Your task to perform on an android device: What's the weather going to be tomorrow? Image 0: 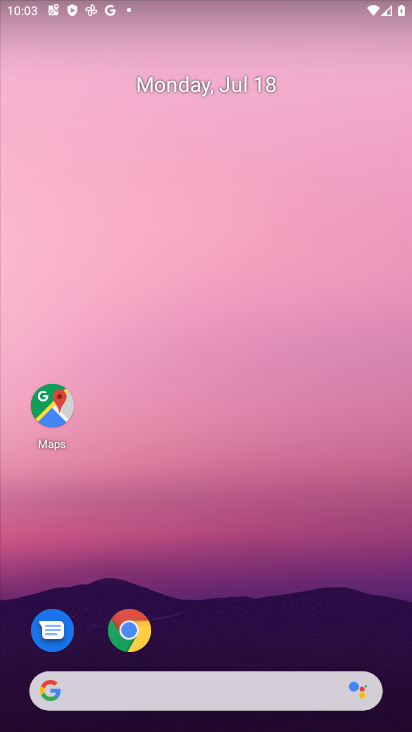
Step 0: drag from (362, 645) to (240, 6)
Your task to perform on an android device: What's the weather going to be tomorrow? Image 1: 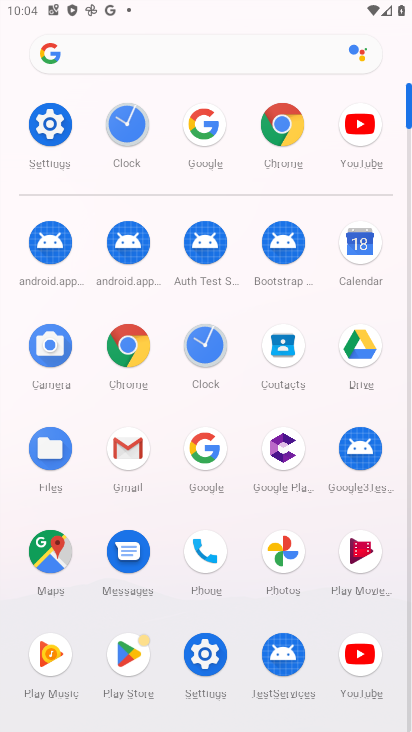
Step 1: click (209, 458)
Your task to perform on an android device: What's the weather going to be tomorrow? Image 2: 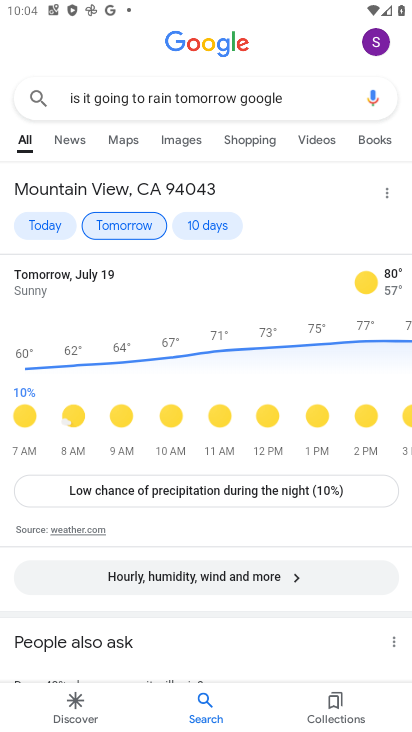
Step 2: press back button
Your task to perform on an android device: What's the weather going to be tomorrow? Image 3: 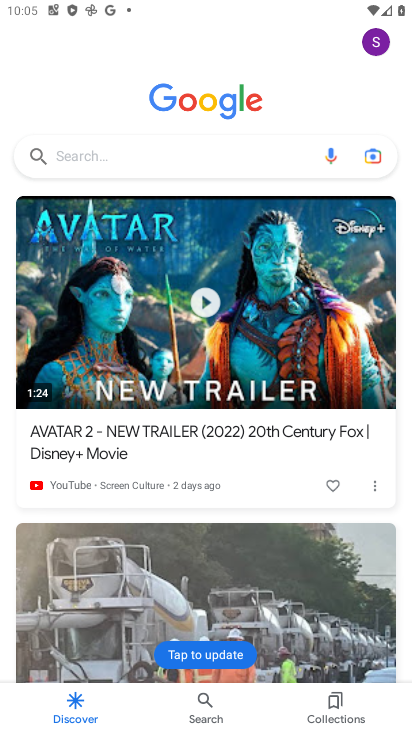
Step 3: click (103, 155)
Your task to perform on an android device: What's the weather going to be tomorrow? Image 4: 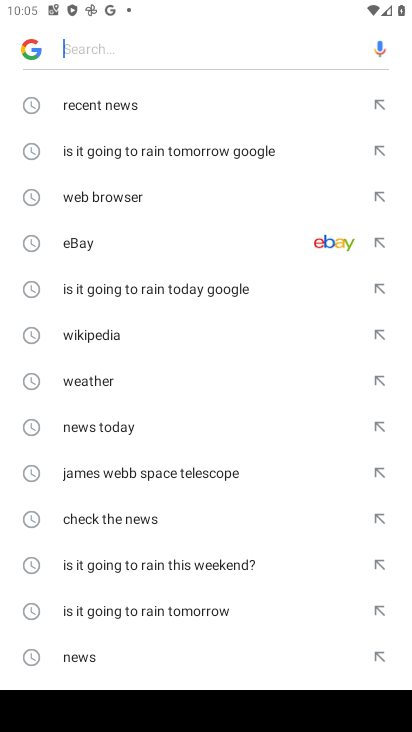
Step 4: drag from (153, 553) to (187, 222)
Your task to perform on an android device: What's the weather going to be tomorrow? Image 5: 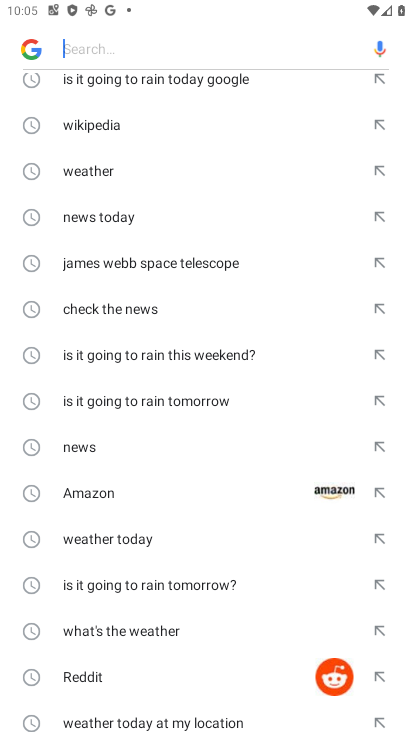
Step 5: drag from (133, 698) to (196, 215)
Your task to perform on an android device: What's the weather going to be tomorrow? Image 6: 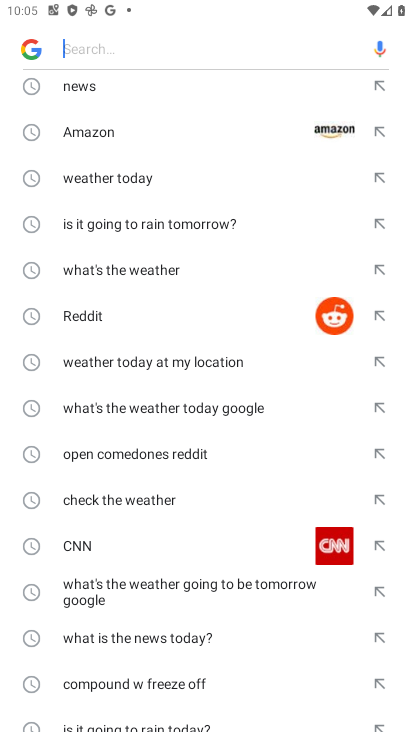
Step 6: click (155, 592)
Your task to perform on an android device: What's the weather going to be tomorrow? Image 7: 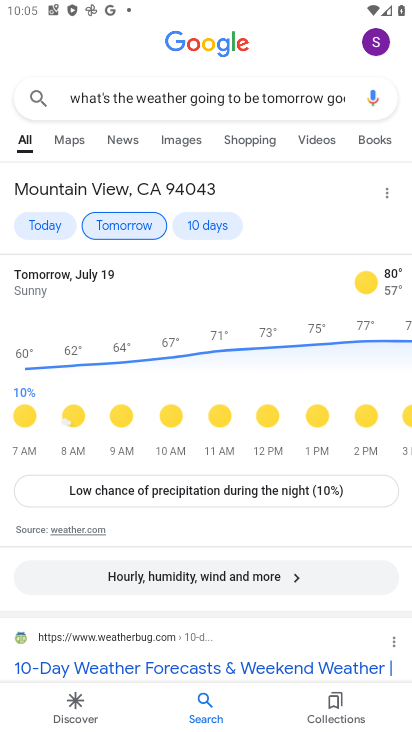
Step 7: task complete